Your task to perform on an android device: Go to network settings Image 0: 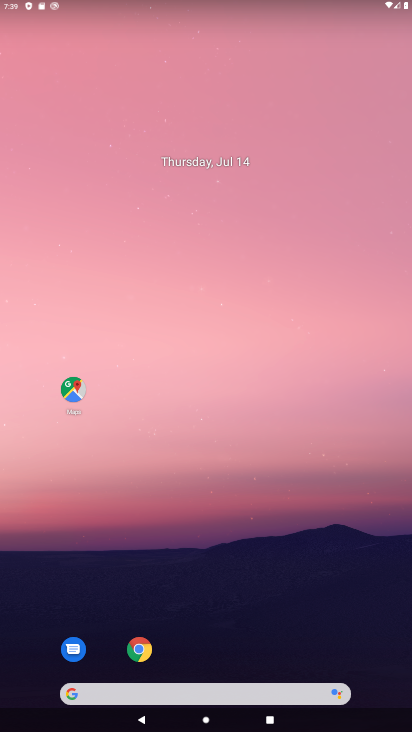
Step 0: drag from (319, 525) to (280, 98)
Your task to perform on an android device: Go to network settings Image 1: 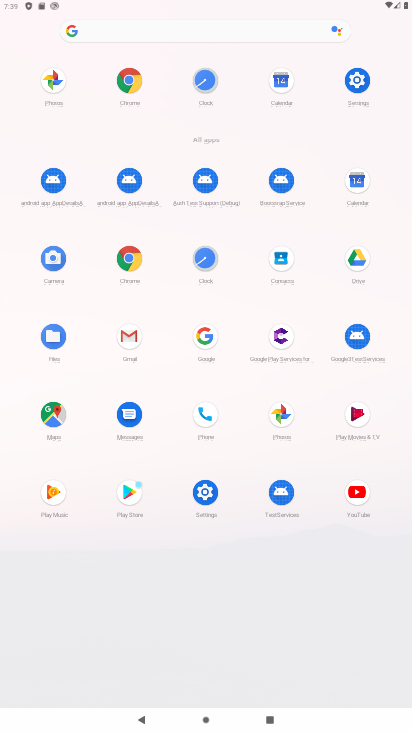
Step 1: click (348, 81)
Your task to perform on an android device: Go to network settings Image 2: 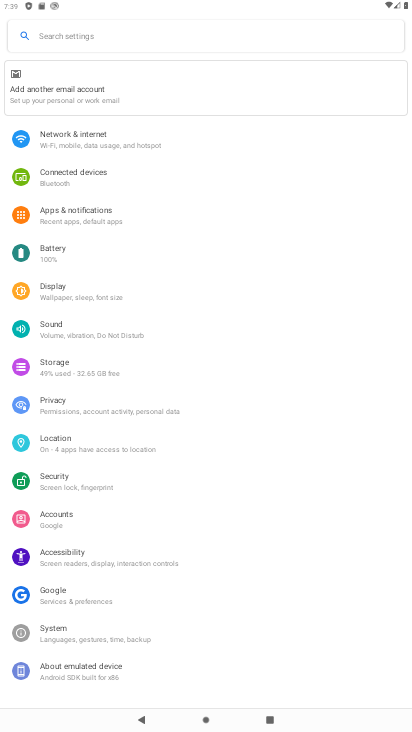
Step 2: click (77, 137)
Your task to perform on an android device: Go to network settings Image 3: 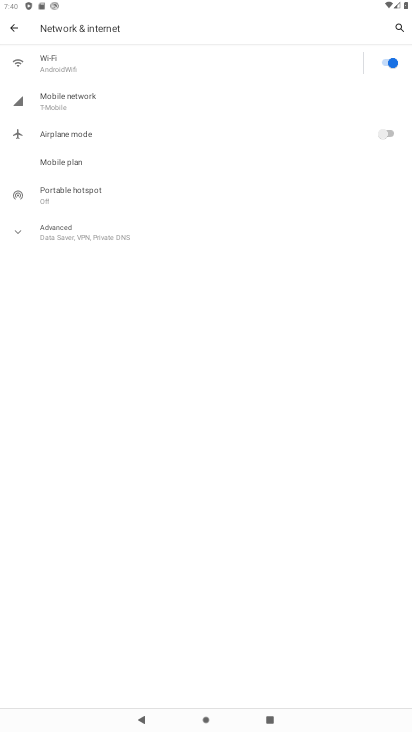
Step 3: task complete